Your task to perform on an android device: choose inbox layout in the gmail app Image 0: 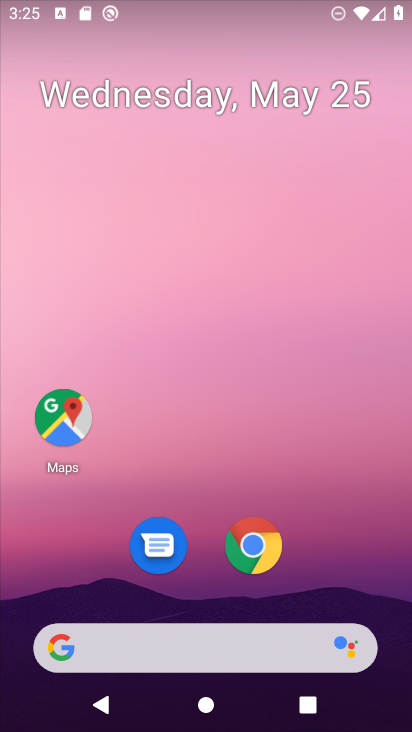
Step 0: drag from (365, 598) to (337, 1)
Your task to perform on an android device: choose inbox layout in the gmail app Image 1: 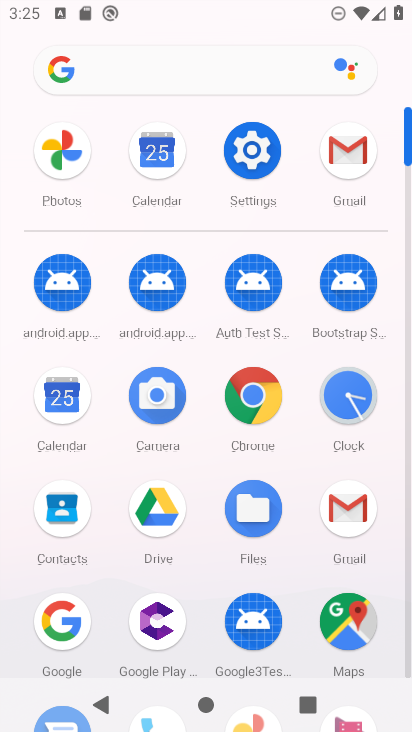
Step 1: click (345, 164)
Your task to perform on an android device: choose inbox layout in the gmail app Image 2: 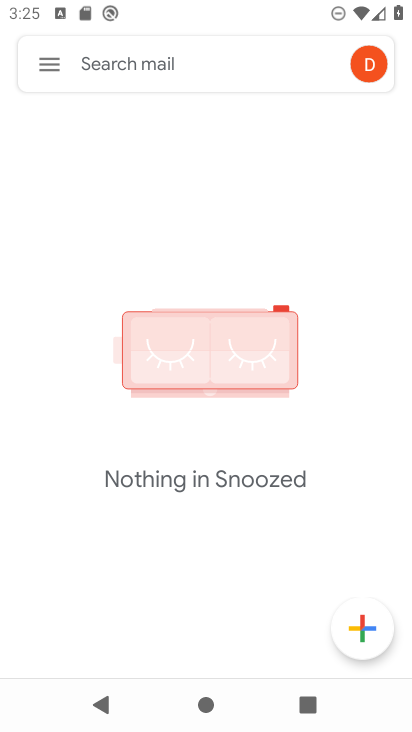
Step 2: task complete